Your task to perform on an android device: toggle location history Image 0: 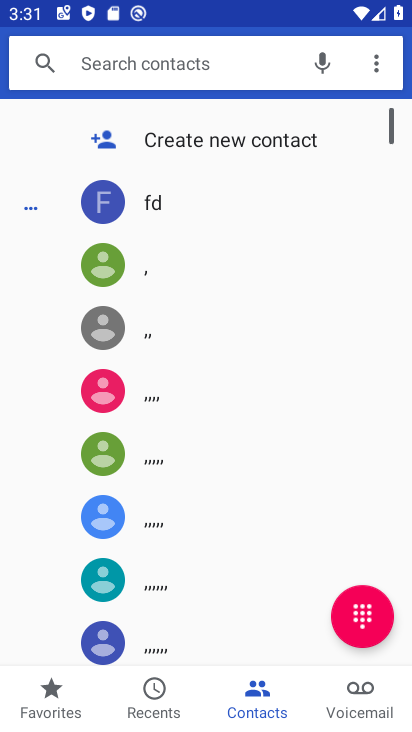
Step 0: press home button
Your task to perform on an android device: toggle location history Image 1: 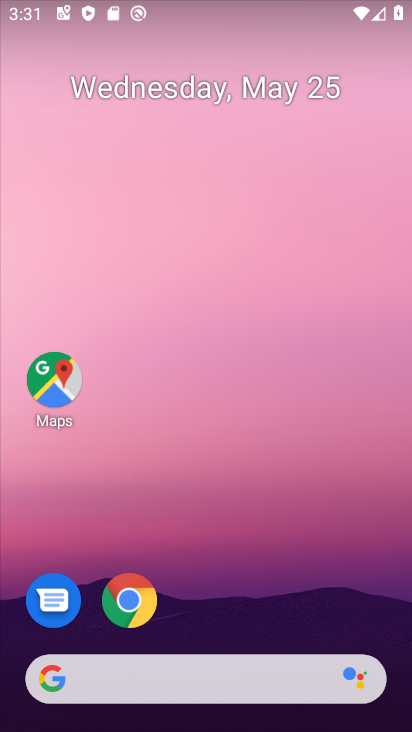
Step 1: drag from (0, 706) to (262, 113)
Your task to perform on an android device: toggle location history Image 2: 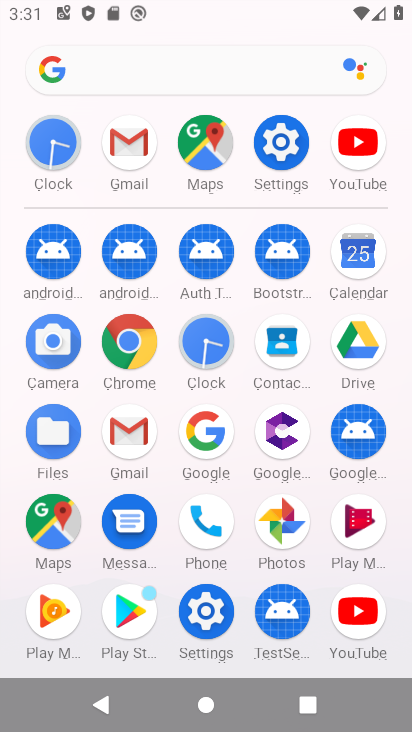
Step 2: click (280, 153)
Your task to perform on an android device: toggle location history Image 3: 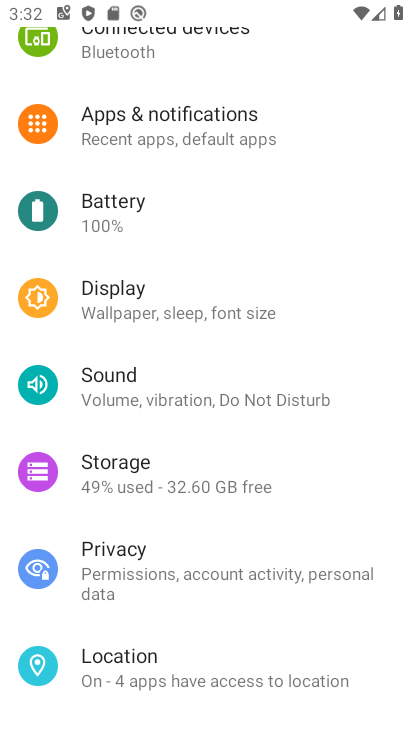
Step 3: click (121, 670)
Your task to perform on an android device: toggle location history Image 4: 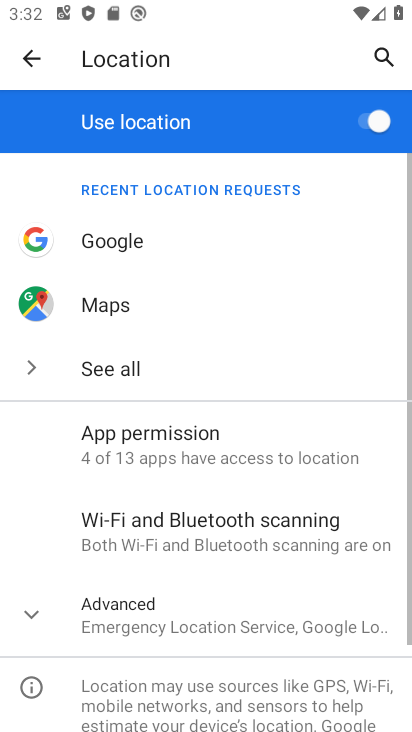
Step 4: click (207, 618)
Your task to perform on an android device: toggle location history Image 5: 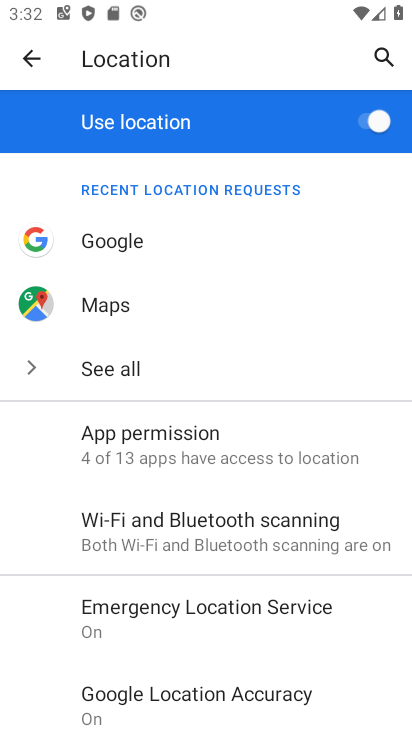
Step 5: drag from (13, 676) to (175, 201)
Your task to perform on an android device: toggle location history Image 6: 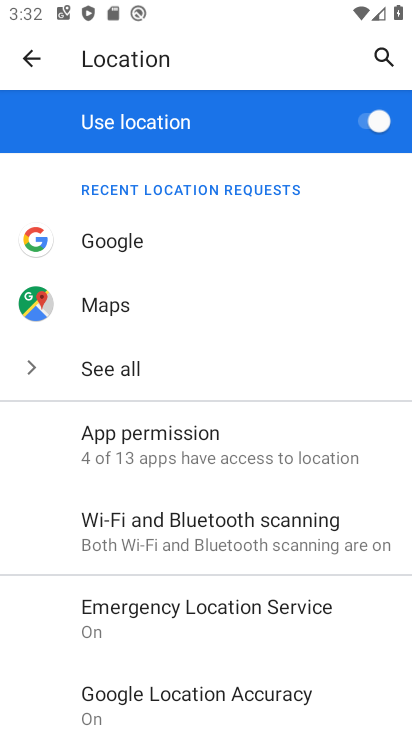
Step 6: drag from (18, 412) to (148, 175)
Your task to perform on an android device: toggle location history Image 7: 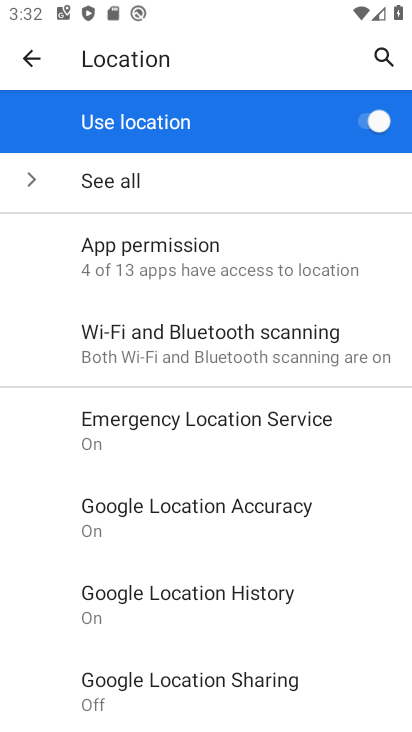
Step 7: click (180, 592)
Your task to perform on an android device: toggle location history Image 8: 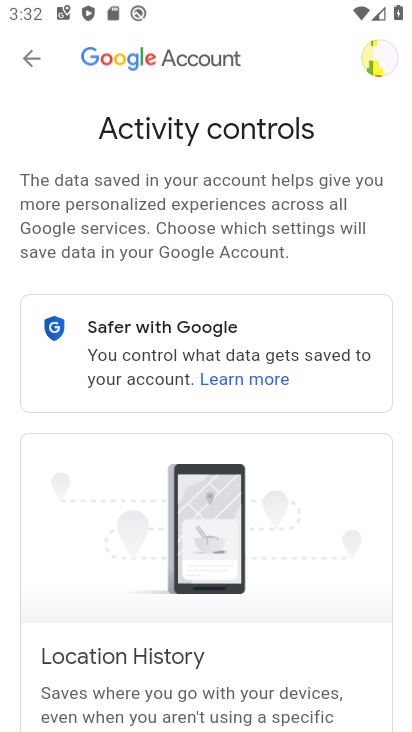
Step 8: drag from (7, 567) to (265, 84)
Your task to perform on an android device: toggle location history Image 9: 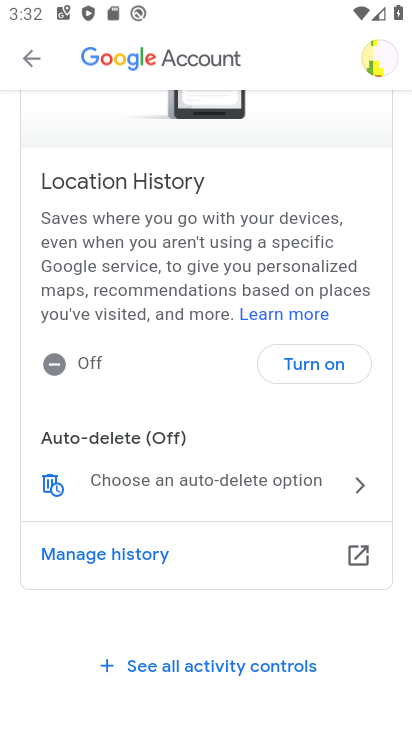
Step 9: click (304, 357)
Your task to perform on an android device: toggle location history Image 10: 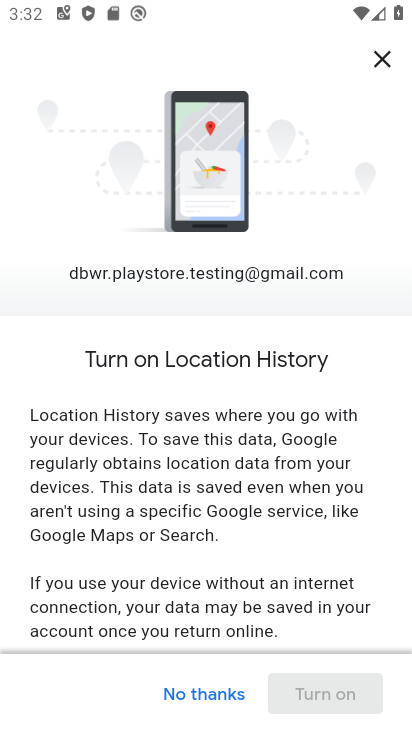
Step 10: drag from (18, 588) to (239, 113)
Your task to perform on an android device: toggle location history Image 11: 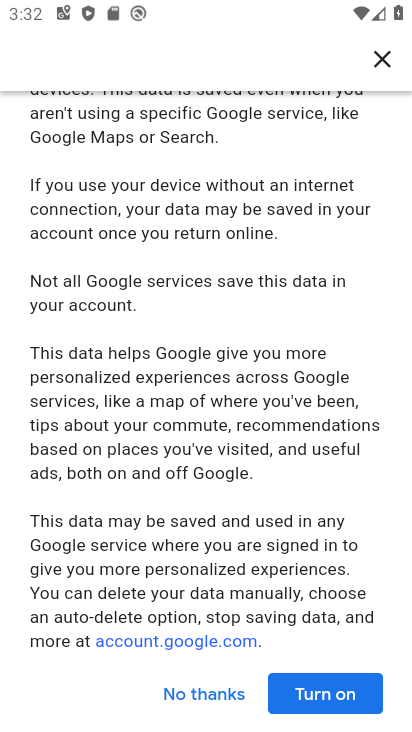
Step 11: click (321, 702)
Your task to perform on an android device: toggle location history Image 12: 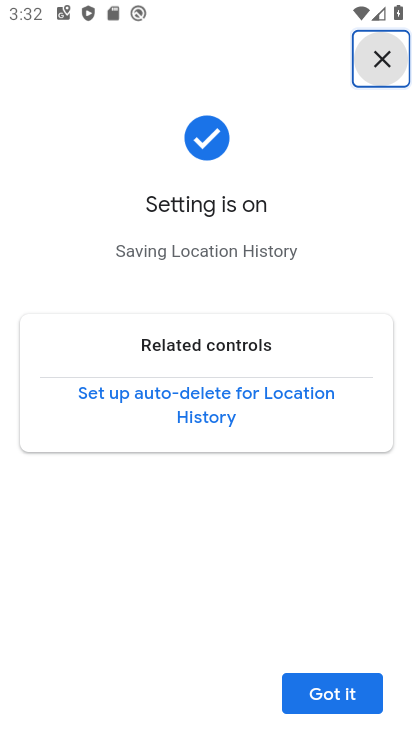
Step 12: click (344, 686)
Your task to perform on an android device: toggle location history Image 13: 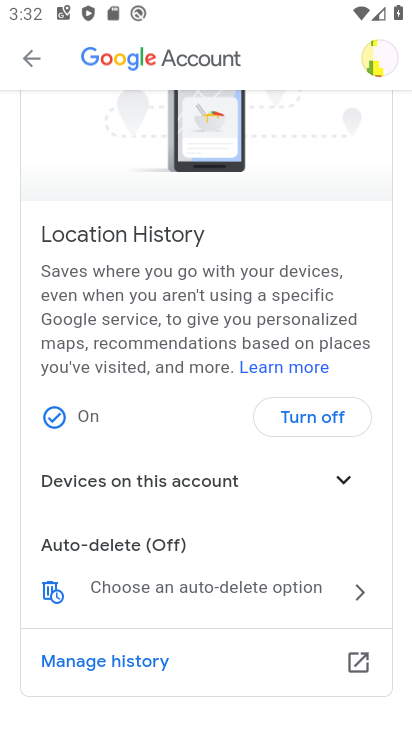
Step 13: task complete